Your task to perform on an android device: Search for vegetarian restaurants on Maps Image 0: 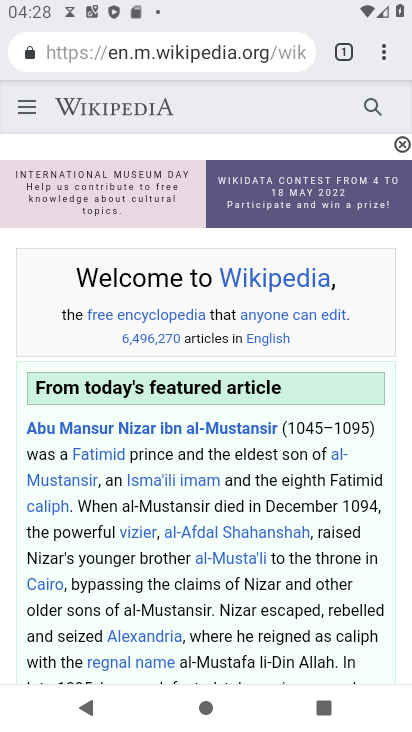
Step 0: press home button
Your task to perform on an android device: Search for vegetarian restaurants on Maps Image 1: 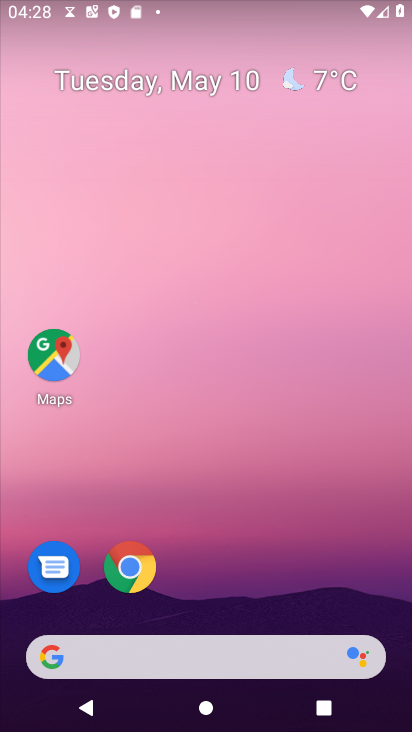
Step 1: click (54, 356)
Your task to perform on an android device: Search for vegetarian restaurants on Maps Image 2: 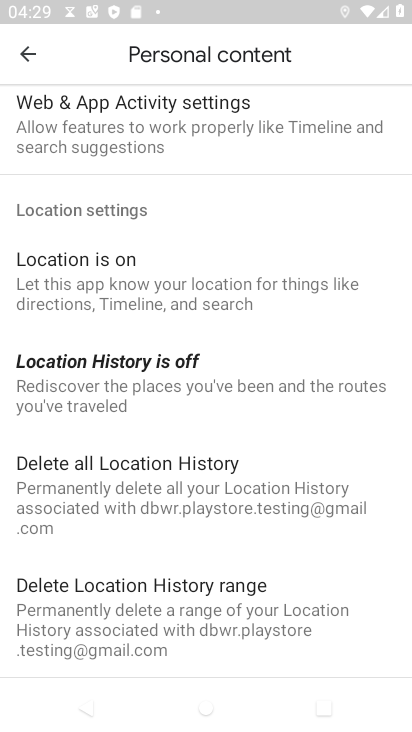
Step 2: press back button
Your task to perform on an android device: Search for vegetarian restaurants on Maps Image 3: 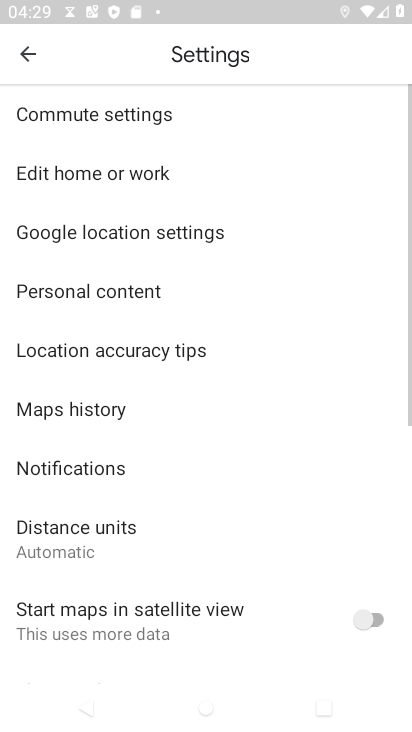
Step 3: press back button
Your task to perform on an android device: Search for vegetarian restaurants on Maps Image 4: 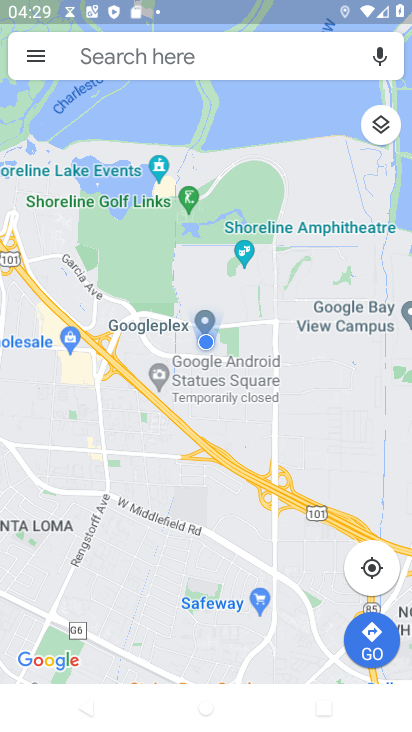
Step 4: click (173, 57)
Your task to perform on an android device: Search for vegetarian restaurants on Maps Image 5: 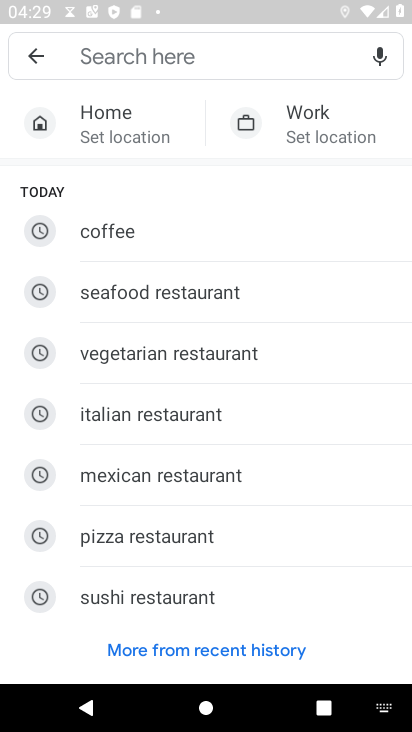
Step 5: click (173, 57)
Your task to perform on an android device: Search for vegetarian restaurants on Maps Image 6: 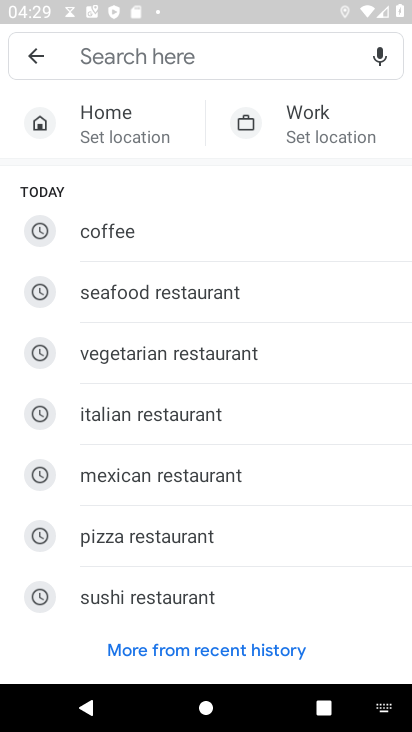
Step 6: type "vegetarian restaurants"
Your task to perform on an android device: Search for vegetarian restaurants on Maps Image 7: 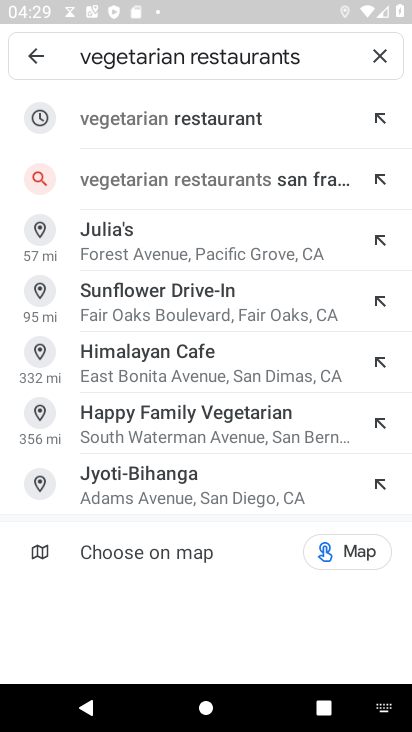
Step 7: click (124, 113)
Your task to perform on an android device: Search for vegetarian restaurants on Maps Image 8: 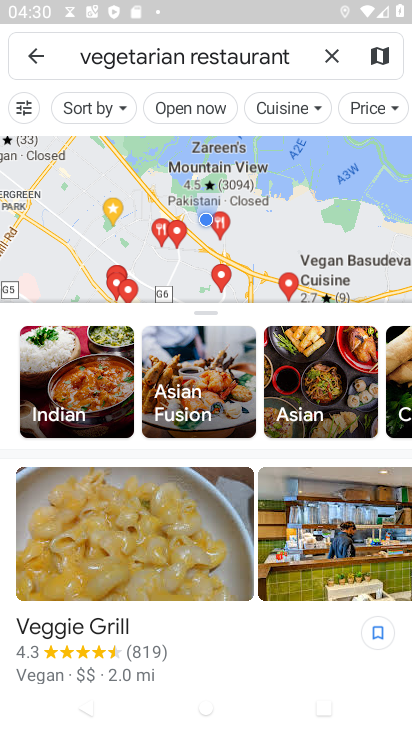
Step 8: task complete